Your task to perform on an android device: Search for macbook pro 13 inch on bestbuy.com, select the first entry, add it to the cart, then select checkout. Image 0: 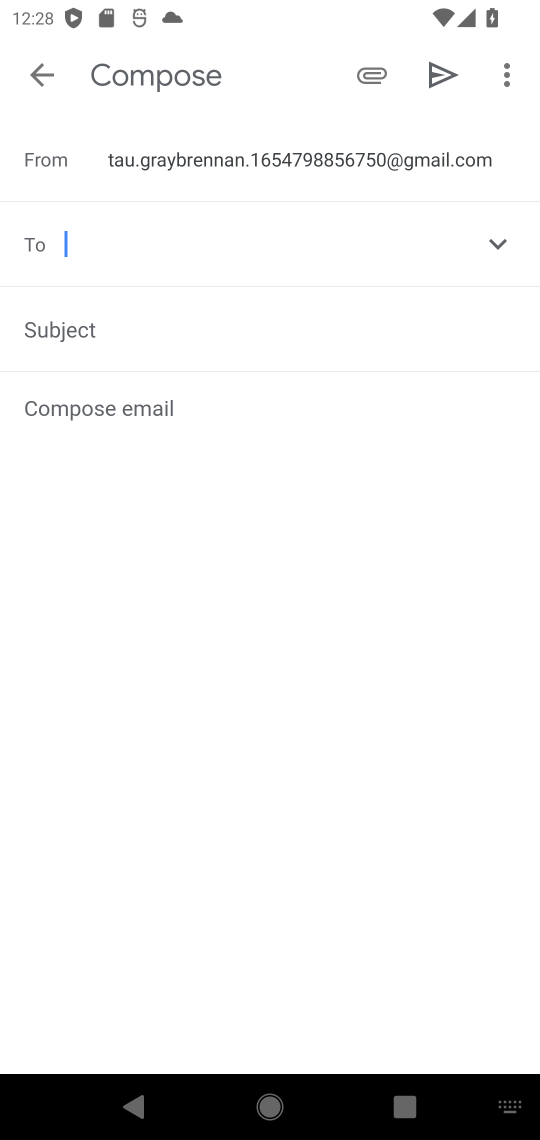
Step 0: press home button
Your task to perform on an android device: Search for macbook pro 13 inch on bestbuy.com, select the first entry, add it to the cart, then select checkout. Image 1: 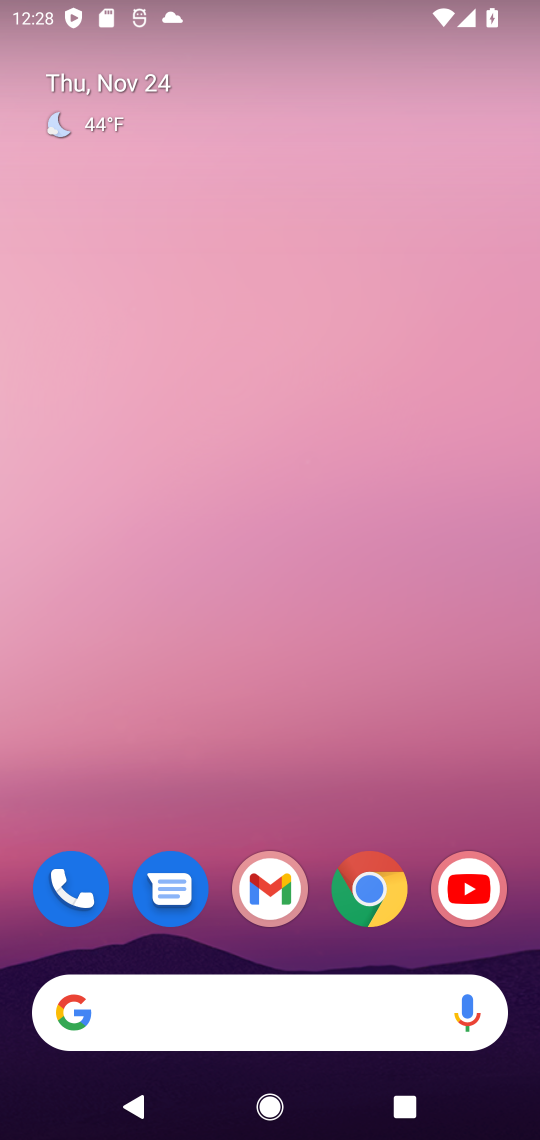
Step 1: click (359, 889)
Your task to perform on an android device: Search for macbook pro 13 inch on bestbuy.com, select the first entry, add it to the cart, then select checkout. Image 2: 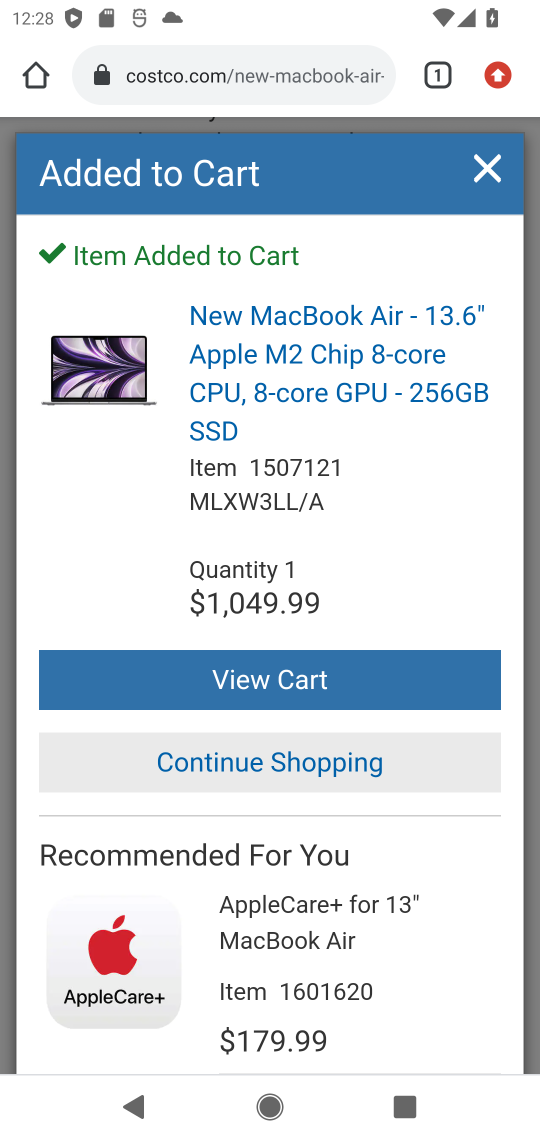
Step 2: click (222, 81)
Your task to perform on an android device: Search for macbook pro 13 inch on bestbuy.com, select the first entry, add it to the cart, then select checkout. Image 3: 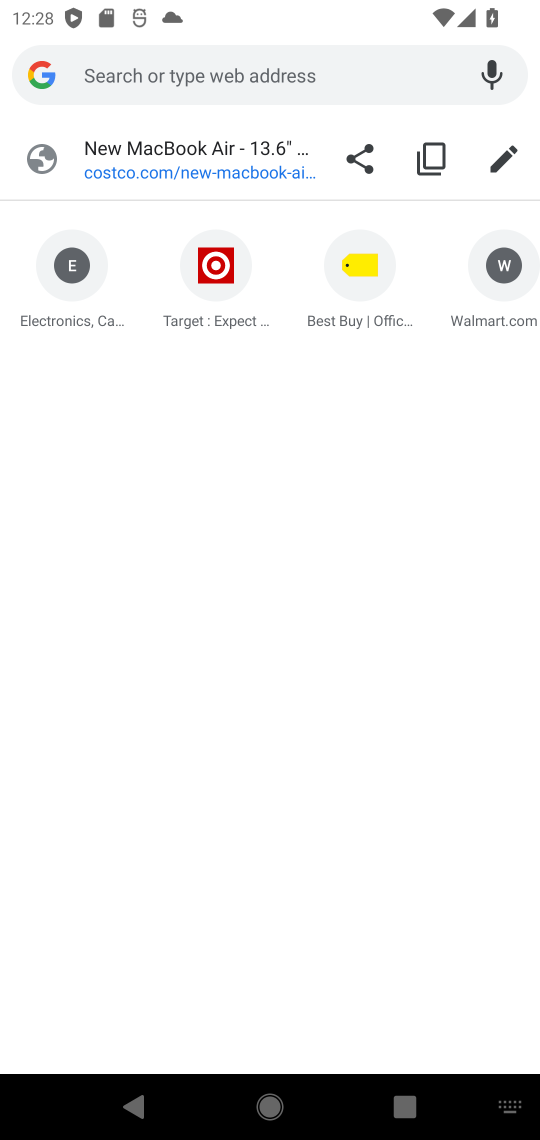
Step 3: click (348, 277)
Your task to perform on an android device: Search for macbook pro 13 inch on bestbuy.com, select the first entry, add it to the cart, then select checkout. Image 4: 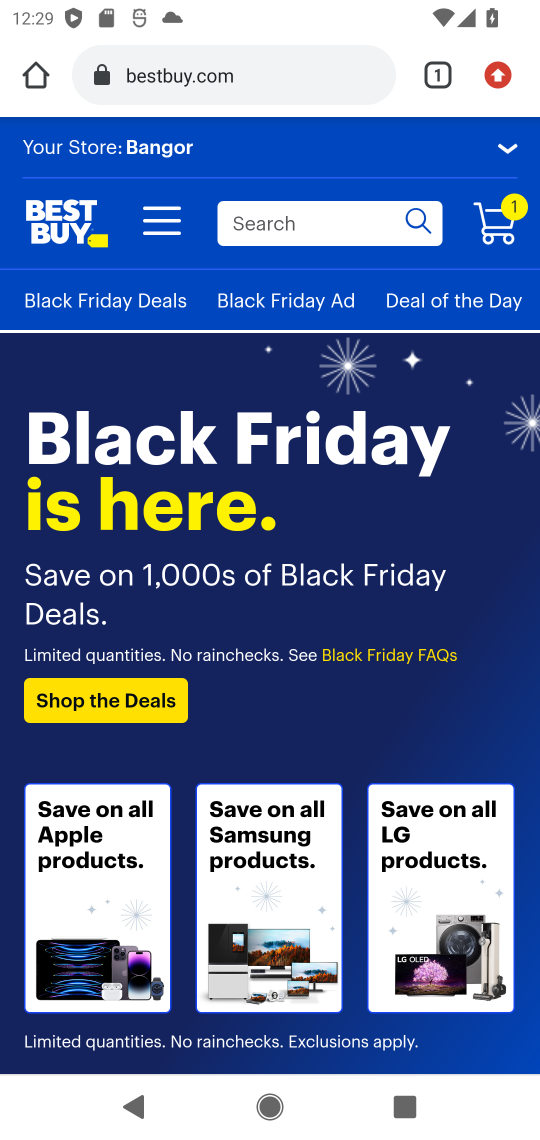
Step 4: click (241, 201)
Your task to perform on an android device: Search for macbook pro 13 inch on bestbuy.com, select the first entry, add it to the cart, then select checkout. Image 5: 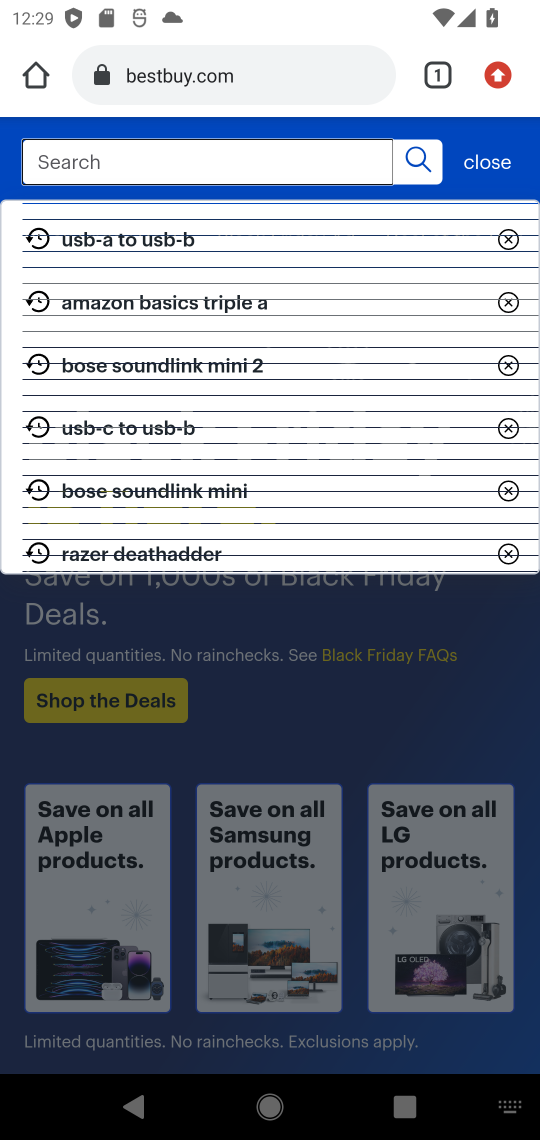
Step 5: type "macbook pro 13 inch "
Your task to perform on an android device: Search for macbook pro 13 inch on bestbuy.com, select the first entry, add it to the cart, then select checkout. Image 6: 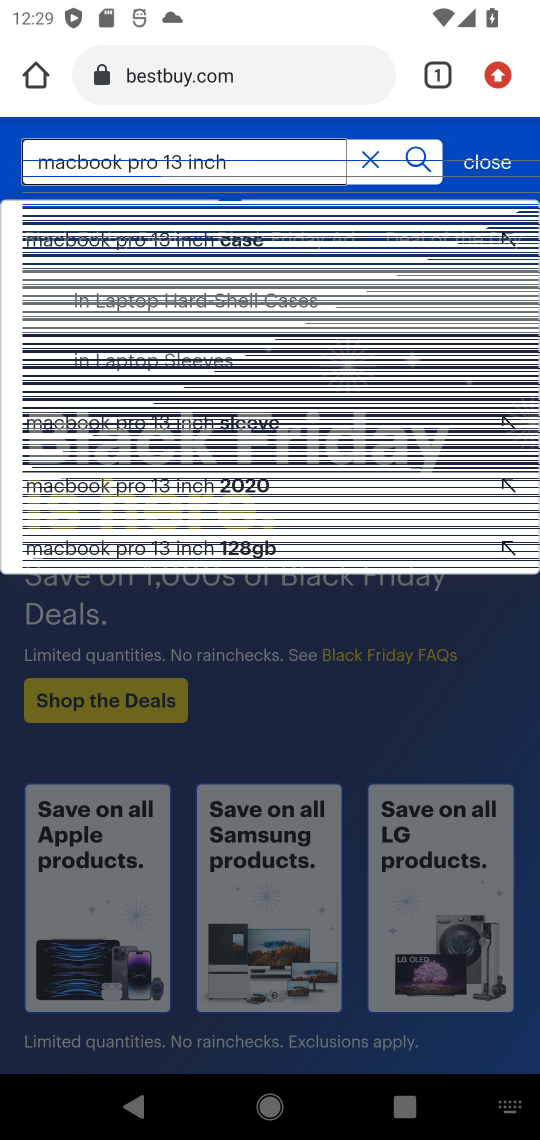
Step 6: click (425, 155)
Your task to perform on an android device: Search for macbook pro 13 inch on bestbuy.com, select the first entry, add it to the cart, then select checkout. Image 7: 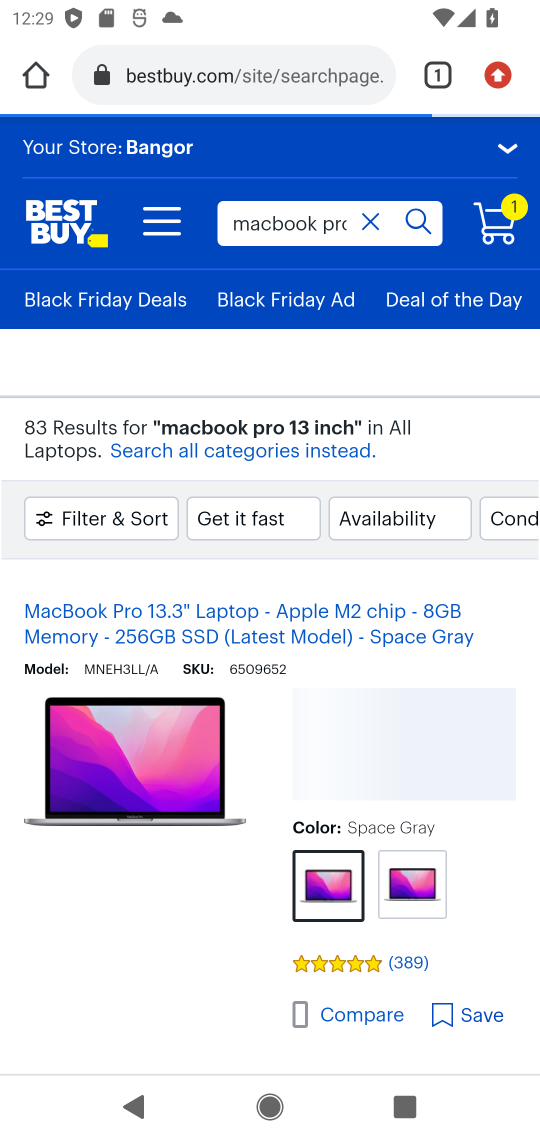
Step 7: drag from (144, 618) to (175, 277)
Your task to perform on an android device: Search for macbook pro 13 inch on bestbuy.com, select the first entry, add it to the cart, then select checkout. Image 8: 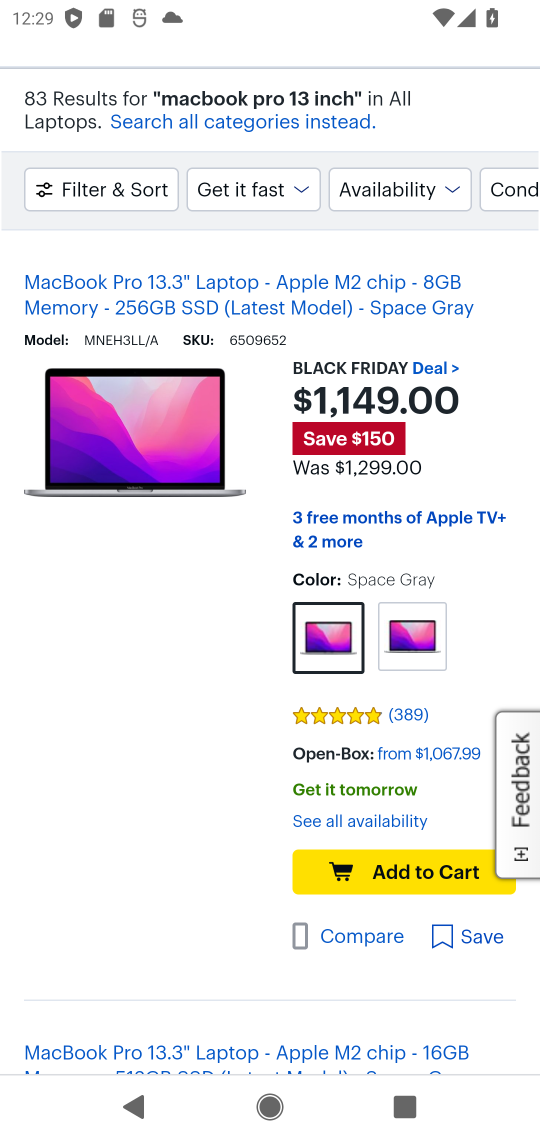
Step 8: click (408, 874)
Your task to perform on an android device: Search for macbook pro 13 inch on bestbuy.com, select the first entry, add it to the cart, then select checkout. Image 9: 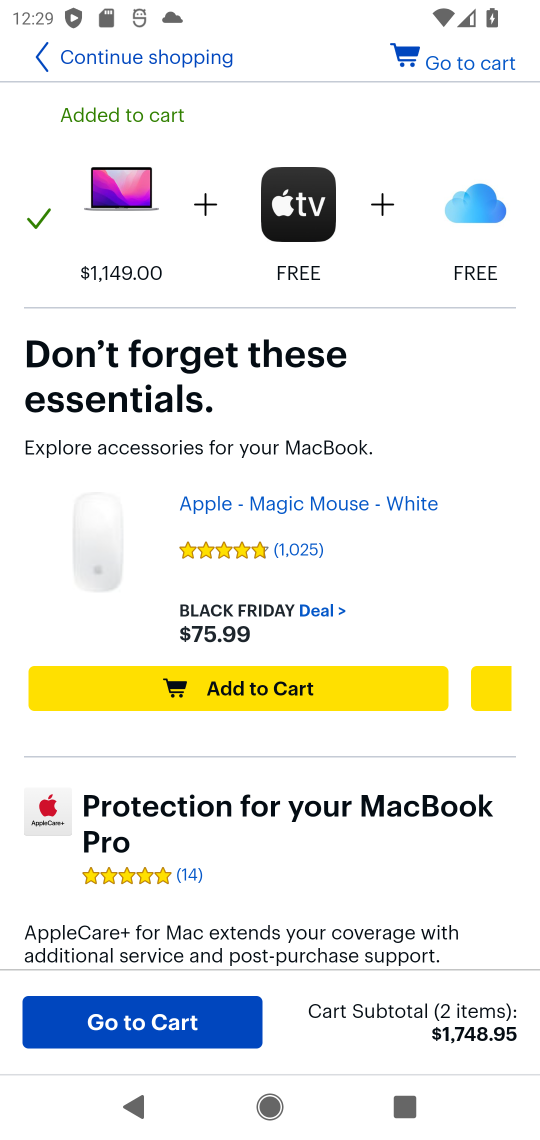
Step 9: click (466, 65)
Your task to perform on an android device: Search for macbook pro 13 inch on bestbuy.com, select the first entry, add it to the cart, then select checkout. Image 10: 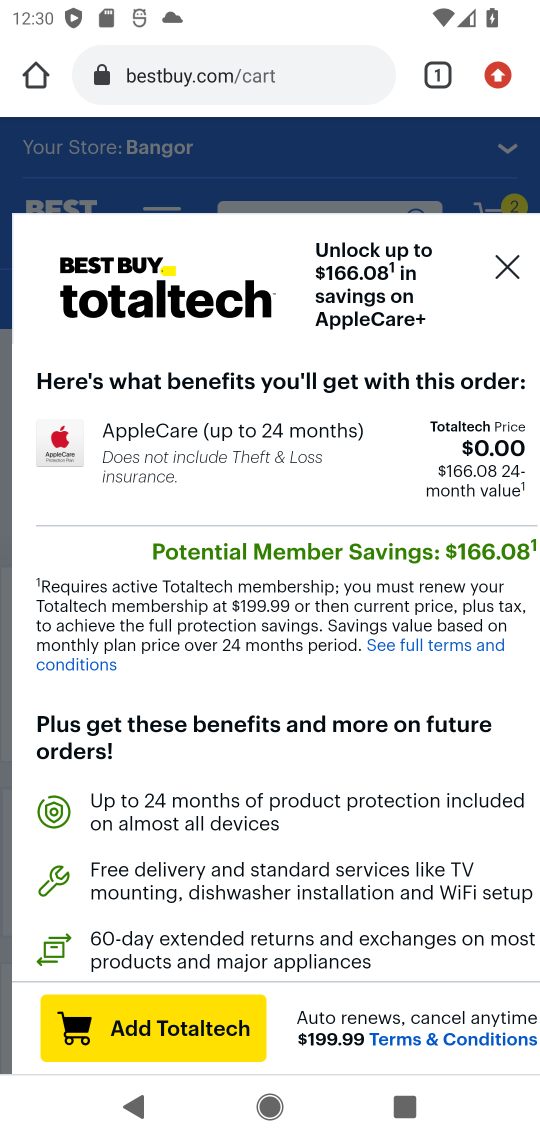
Step 10: click (506, 255)
Your task to perform on an android device: Search for macbook pro 13 inch on bestbuy.com, select the first entry, add it to the cart, then select checkout. Image 11: 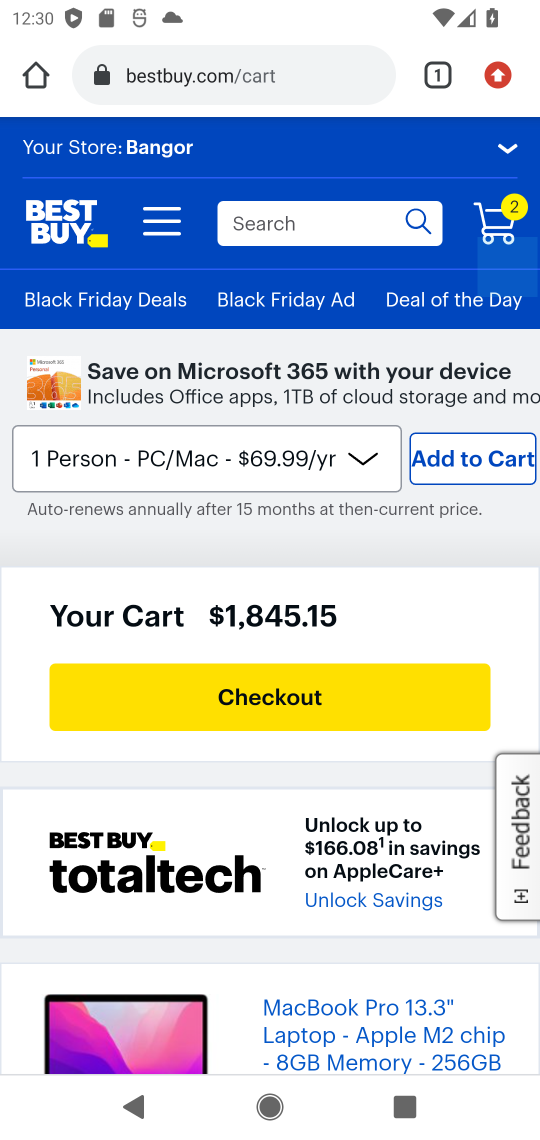
Step 11: click (212, 689)
Your task to perform on an android device: Search for macbook pro 13 inch on bestbuy.com, select the first entry, add it to the cart, then select checkout. Image 12: 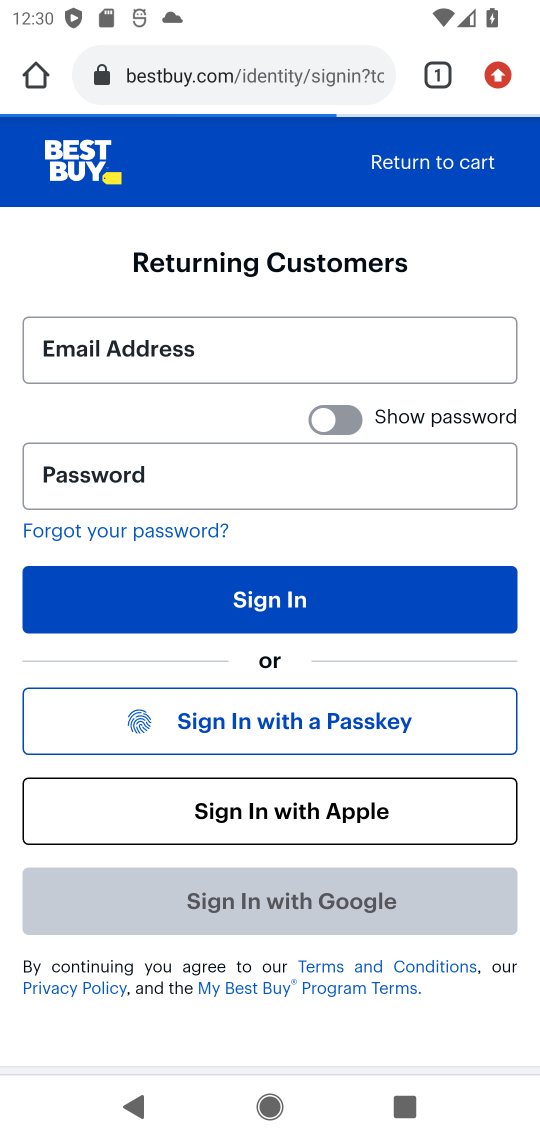
Step 12: task complete